Your task to perform on an android device: turn off airplane mode Image 0: 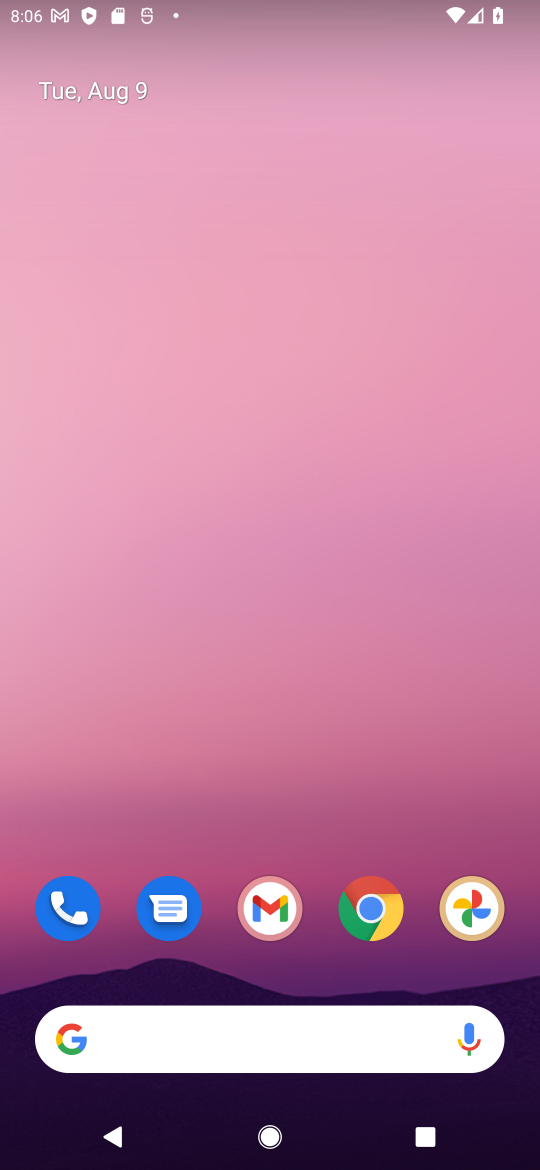
Step 0: drag from (228, 988) to (248, 33)
Your task to perform on an android device: turn off airplane mode Image 1: 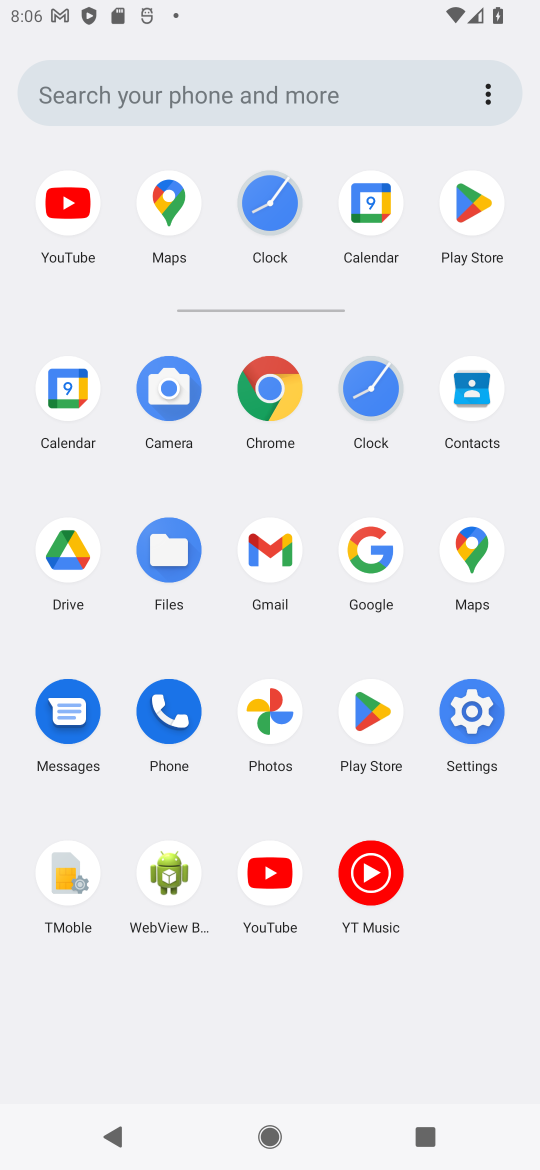
Step 1: click (476, 729)
Your task to perform on an android device: turn off airplane mode Image 2: 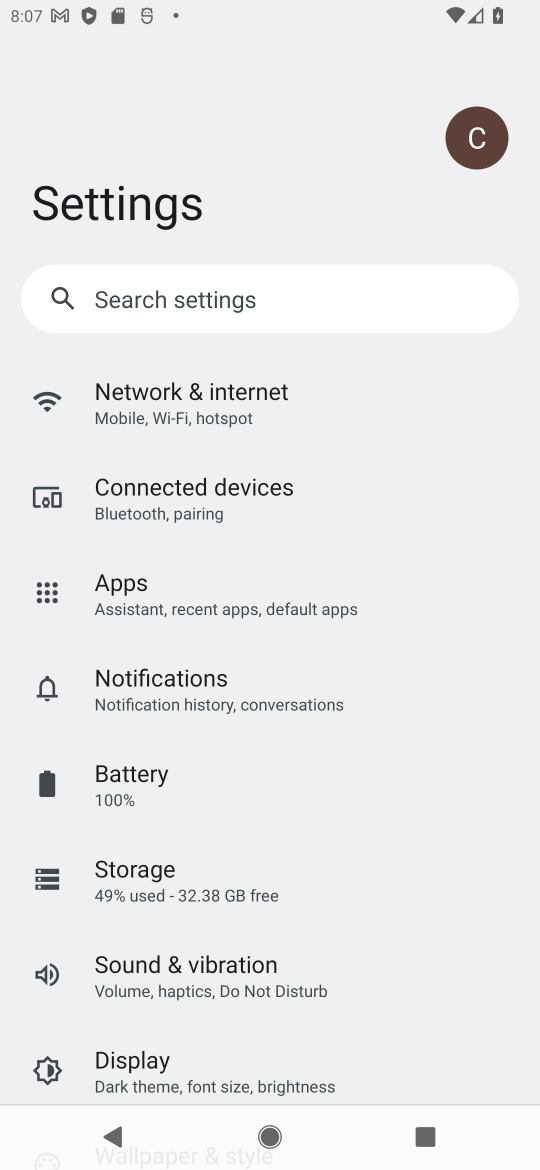
Step 2: click (214, 394)
Your task to perform on an android device: turn off airplane mode Image 3: 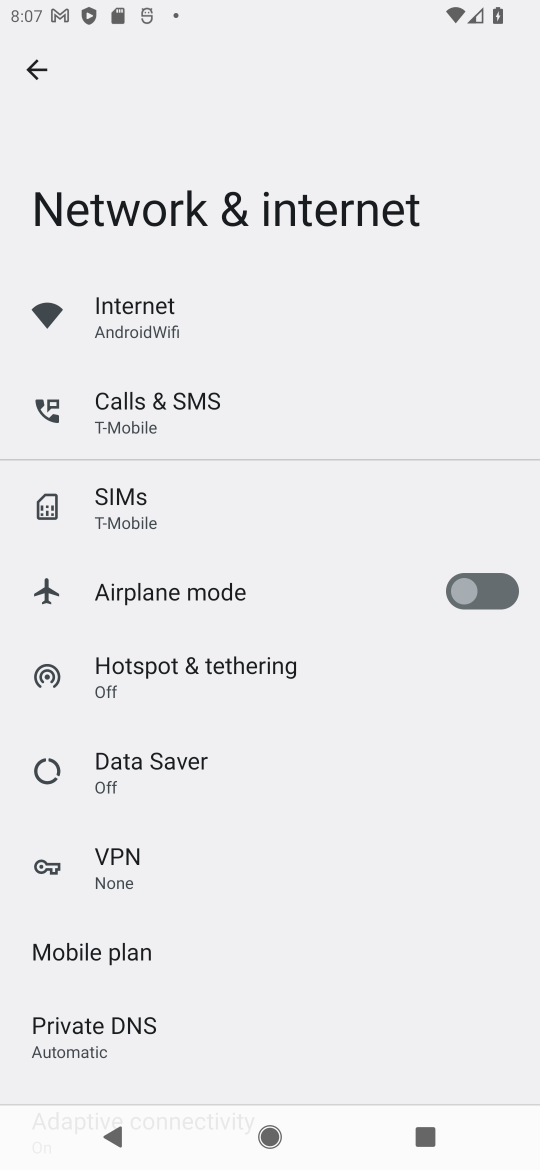
Step 3: task complete